Your task to perform on an android device: Go to ESPN.com Image 0: 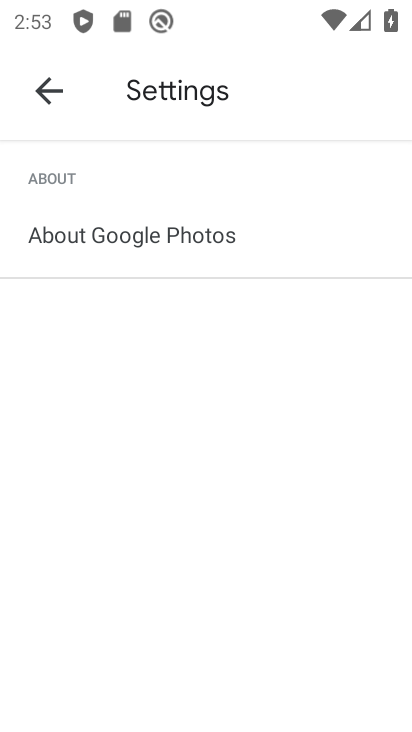
Step 0: press home button
Your task to perform on an android device: Go to ESPN.com Image 1: 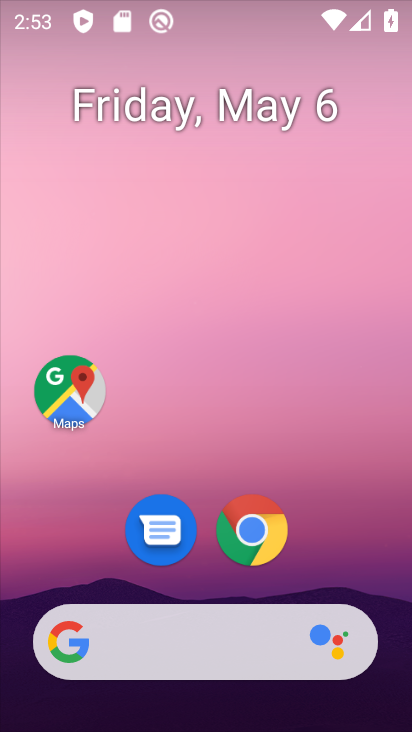
Step 1: drag from (189, 683) to (238, 153)
Your task to perform on an android device: Go to ESPN.com Image 2: 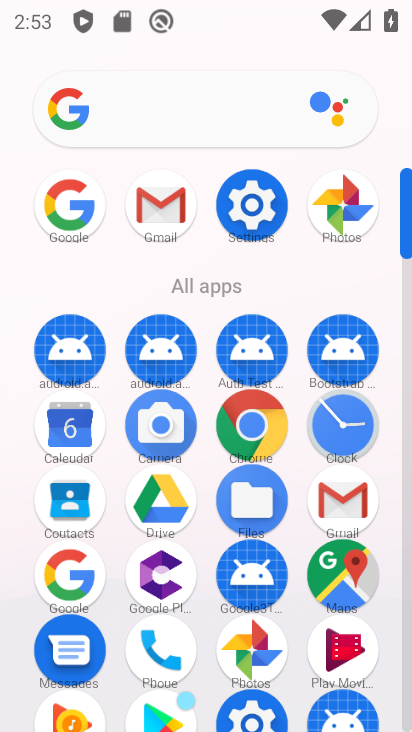
Step 2: click (262, 445)
Your task to perform on an android device: Go to ESPN.com Image 3: 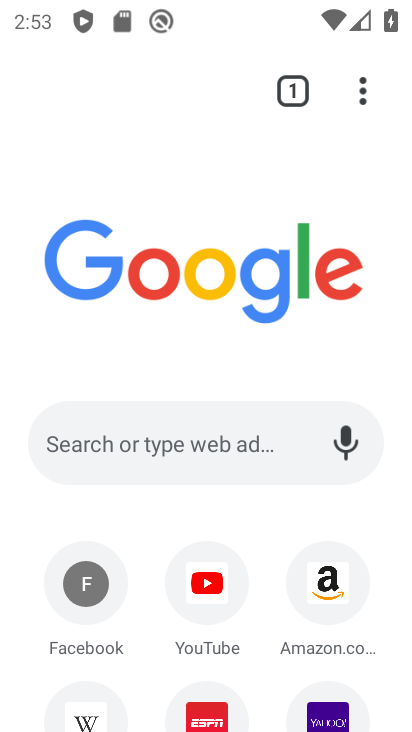
Step 3: drag from (292, 363) to (360, 131)
Your task to perform on an android device: Go to ESPN.com Image 4: 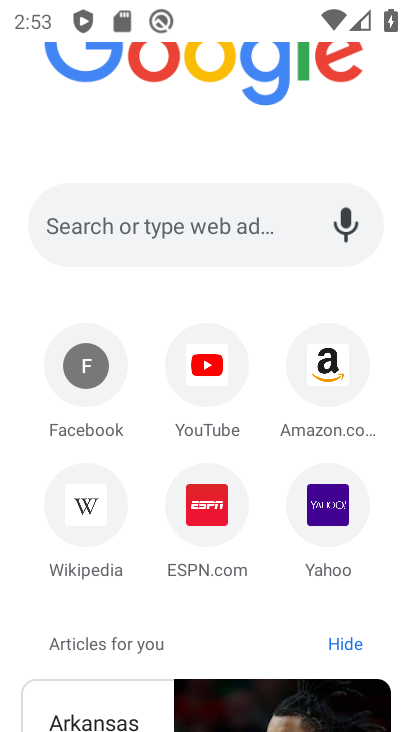
Step 4: click (224, 499)
Your task to perform on an android device: Go to ESPN.com Image 5: 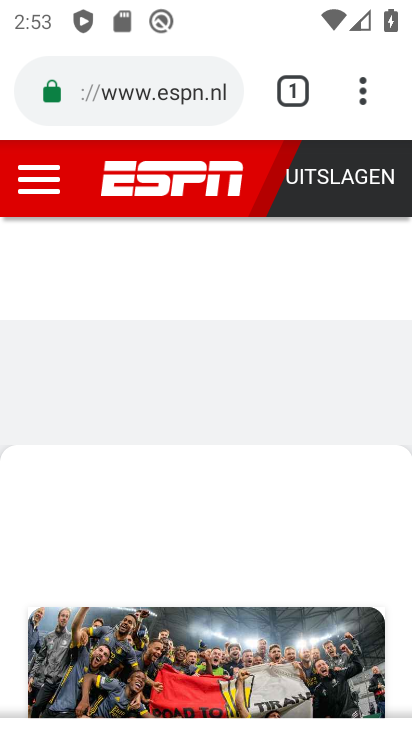
Step 5: task complete